Your task to perform on an android device: Go to settings Image 0: 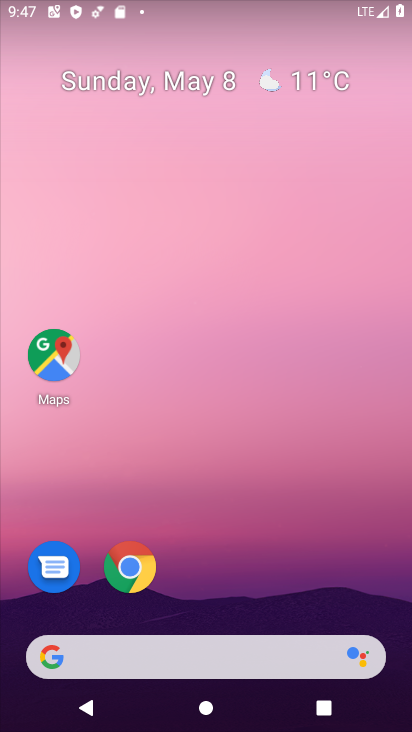
Step 0: drag from (228, 605) to (341, 32)
Your task to perform on an android device: Go to settings Image 1: 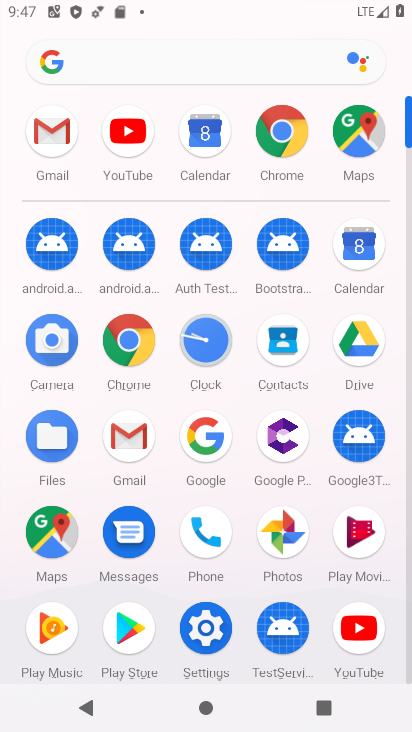
Step 1: click (212, 630)
Your task to perform on an android device: Go to settings Image 2: 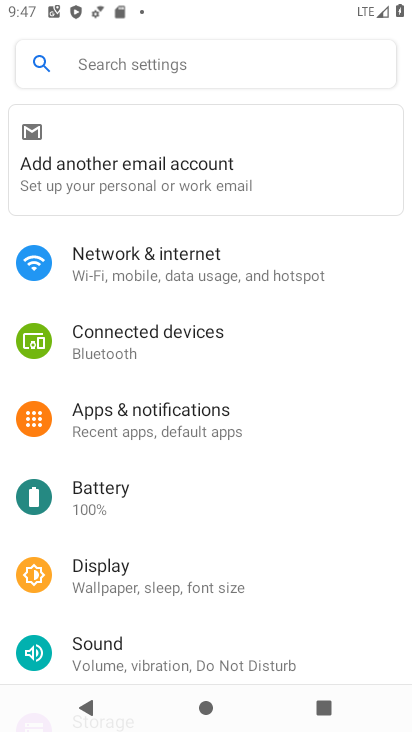
Step 2: task complete